Your task to perform on an android device: turn pop-ups off in chrome Image 0: 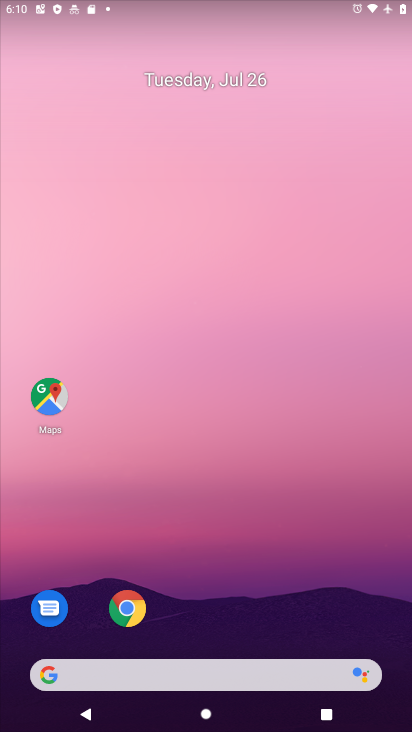
Step 0: press home button
Your task to perform on an android device: turn pop-ups off in chrome Image 1: 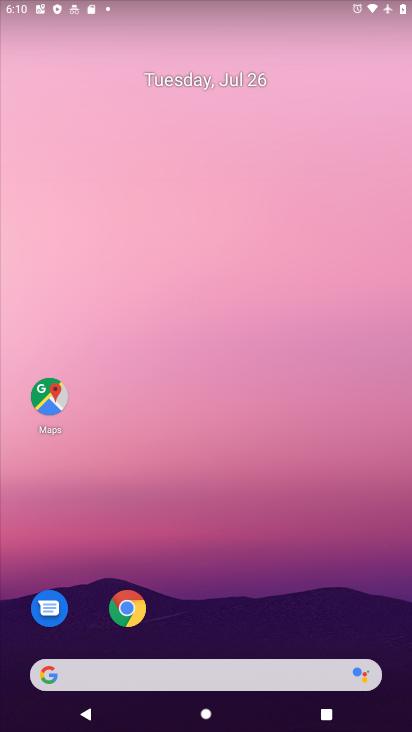
Step 1: drag from (234, 645) to (227, 169)
Your task to perform on an android device: turn pop-ups off in chrome Image 2: 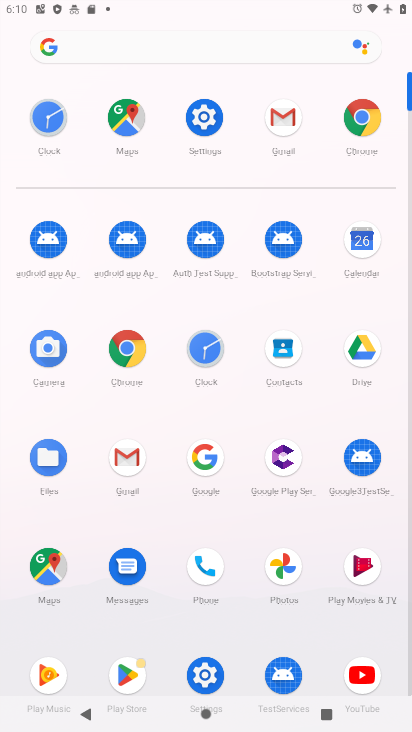
Step 2: click (356, 118)
Your task to perform on an android device: turn pop-ups off in chrome Image 3: 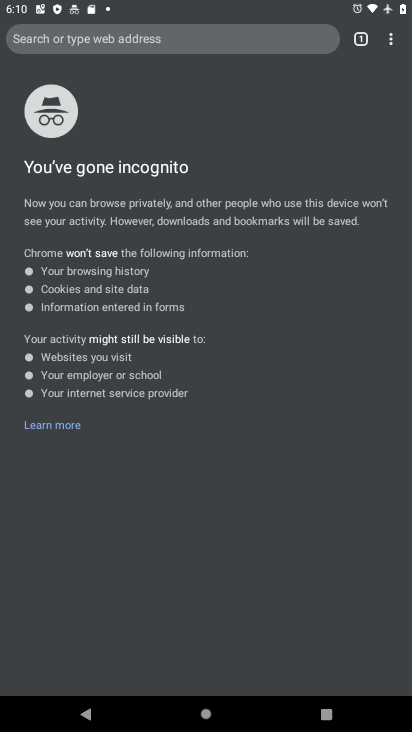
Step 3: drag from (389, 36) to (263, 293)
Your task to perform on an android device: turn pop-ups off in chrome Image 4: 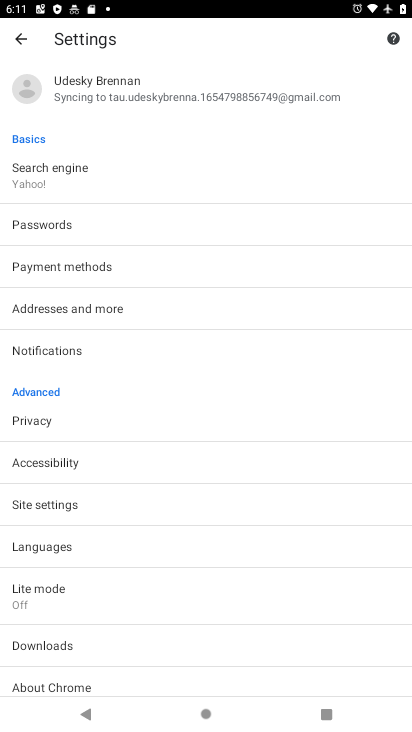
Step 4: click (48, 503)
Your task to perform on an android device: turn pop-ups off in chrome Image 5: 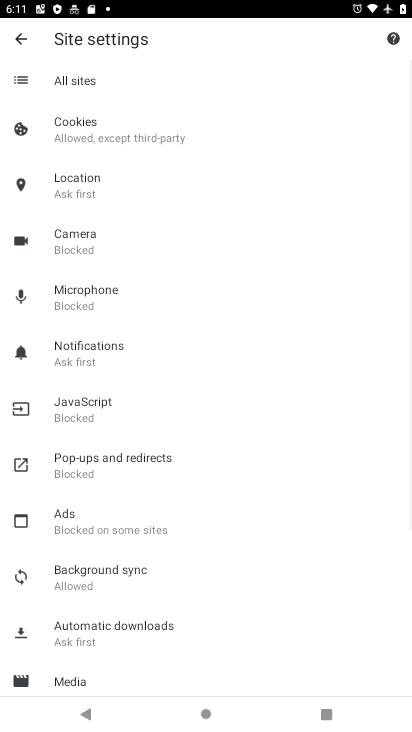
Step 5: click (91, 460)
Your task to perform on an android device: turn pop-ups off in chrome Image 6: 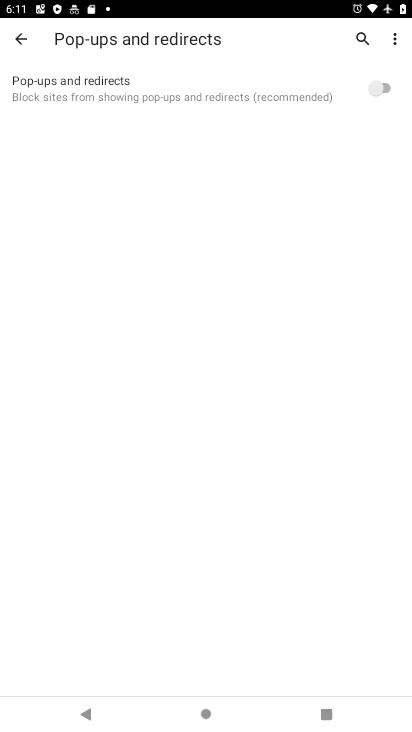
Step 6: task complete